Your task to perform on an android device: Turn on the flashlight Image 0: 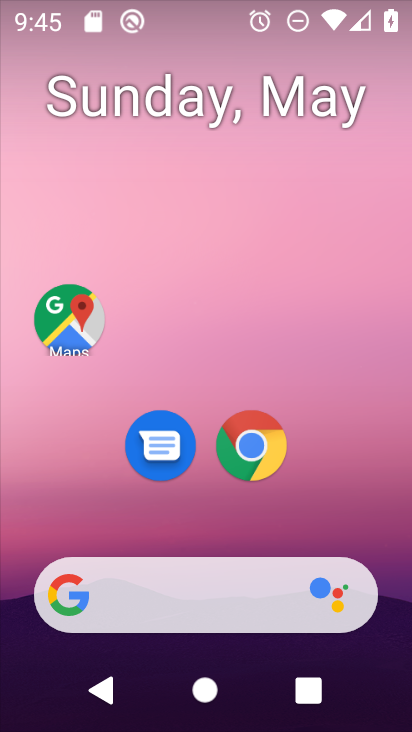
Step 0: drag from (256, 571) to (266, 429)
Your task to perform on an android device: Turn on the flashlight Image 1: 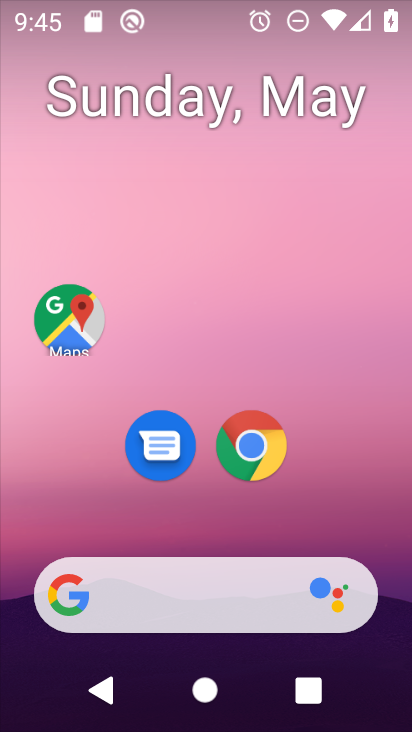
Step 1: task complete